Your task to perform on an android device: When is my next meeting? Image 0: 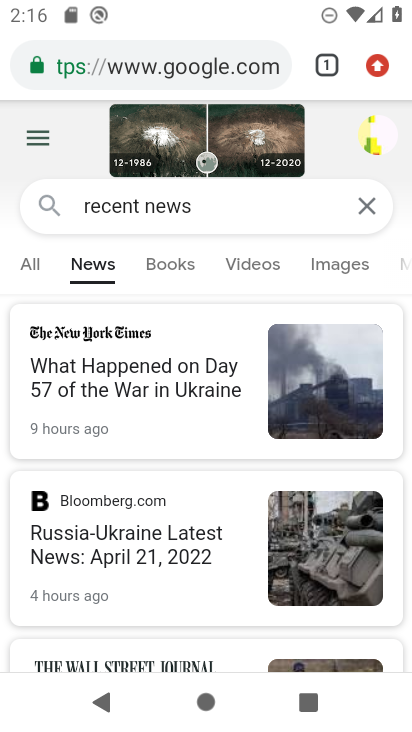
Step 0: click (360, 204)
Your task to perform on an android device: When is my next meeting? Image 1: 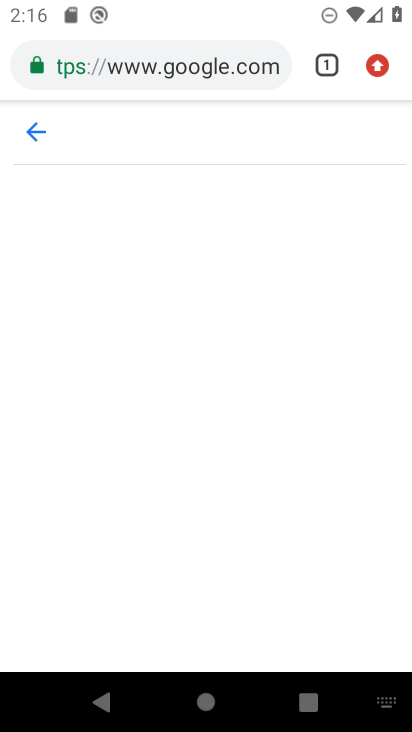
Step 1: press home button
Your task to perform on an android device: When is my next meeting? Image 2: 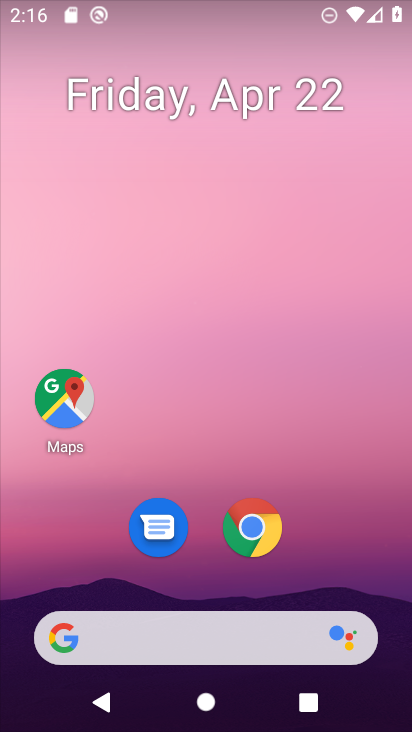
Step 2: drag from (329, 557) to (324, 82)
Your task to perform on an android device: When is my next meeting? Image 3: 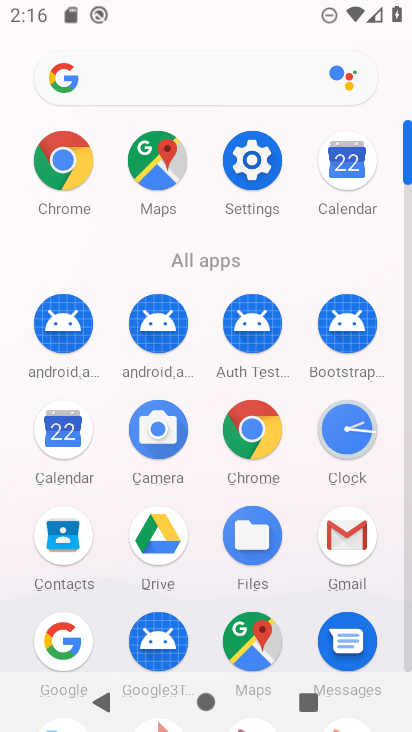
Step 3: drag from (304, 292) to (304, 14)
Your task to perform on an android device: When is my next meeting? Image 4: 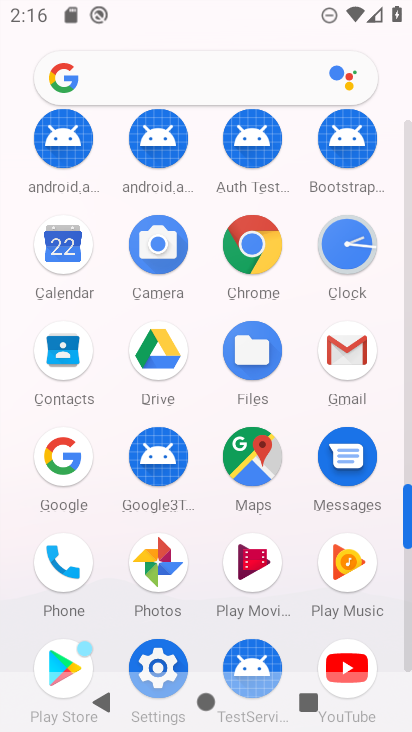
Step 4: click (62, 243)
Your task to perform on an android device: When is my next meeting? Image 5: 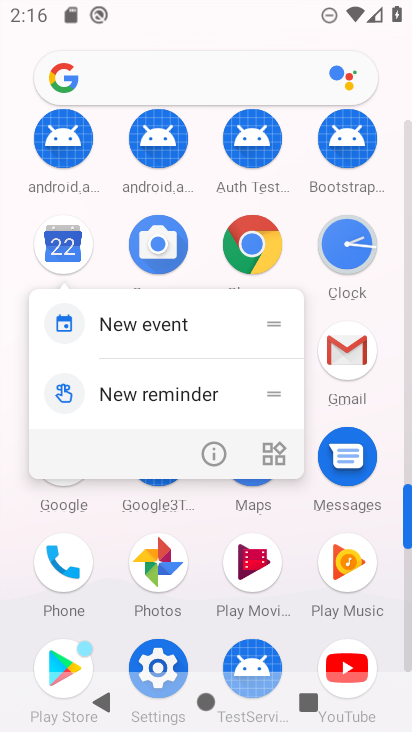
Step 5: click (60, 247)
Your task to perform on an android device: When is my next meeting? Image 6: 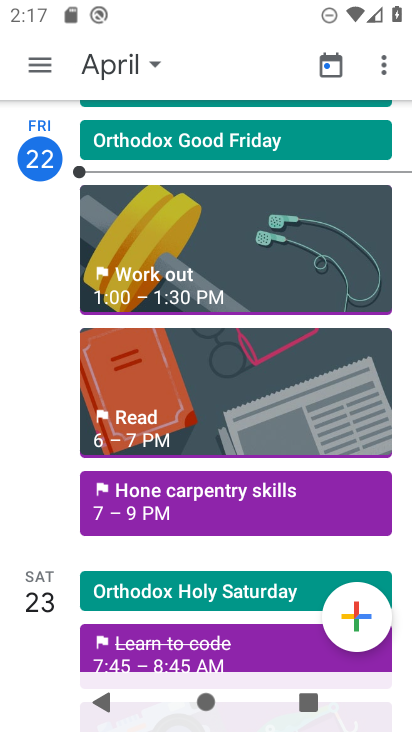
Step 6: click (51, 71)
Your task to perform on an android device: When is my next meeting? Image 7: 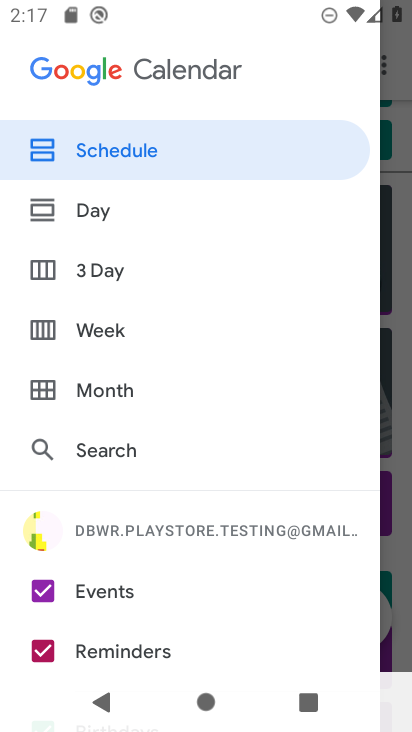
Step 7: click (158, 151)
Your task to perform on an android device: When is my next meeting? Image 8: 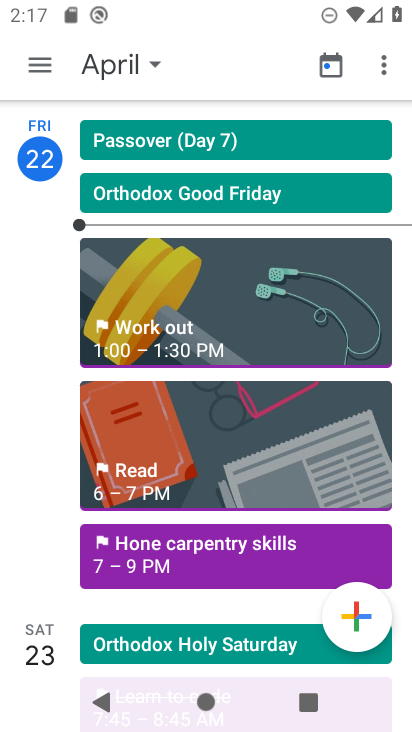
Step 8: task complete